Your task to perform on an android device: Open eBay Image 0: 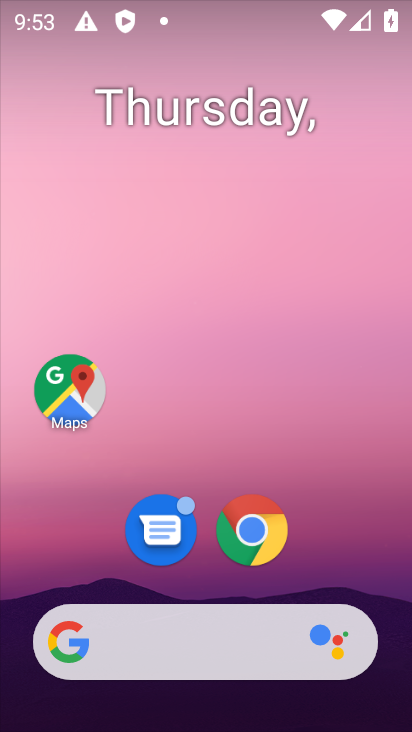
Step 0: press home button
Your task to perform on an android device: Open eBay Image 1: 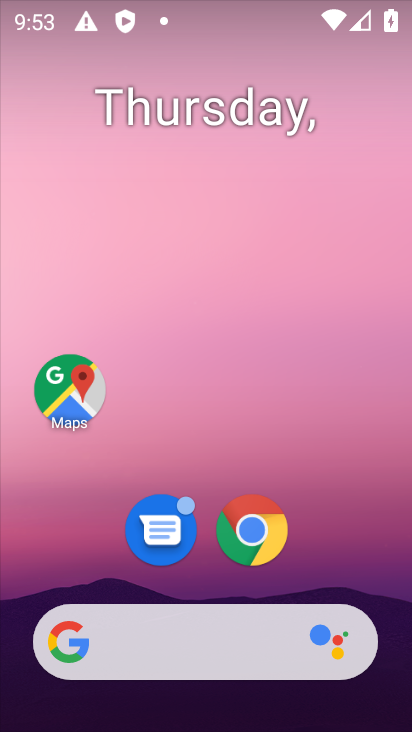
Step 1: click (60, 645)
Your task to perform on an android device: Open eBay Image 2: 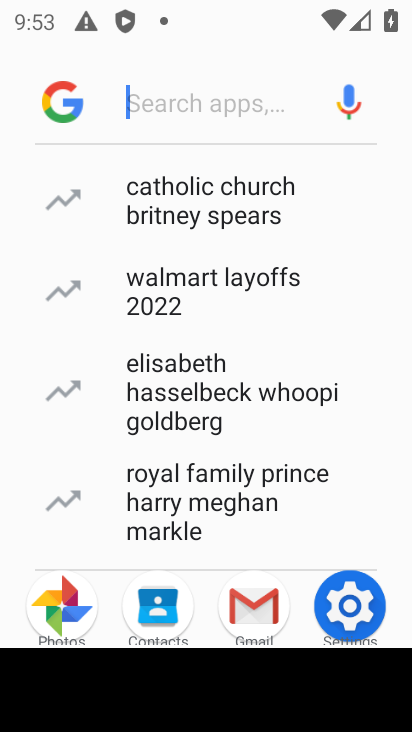
Step 2: type "eBay"
Your task to perform on an android device: Open eBay Image 3: 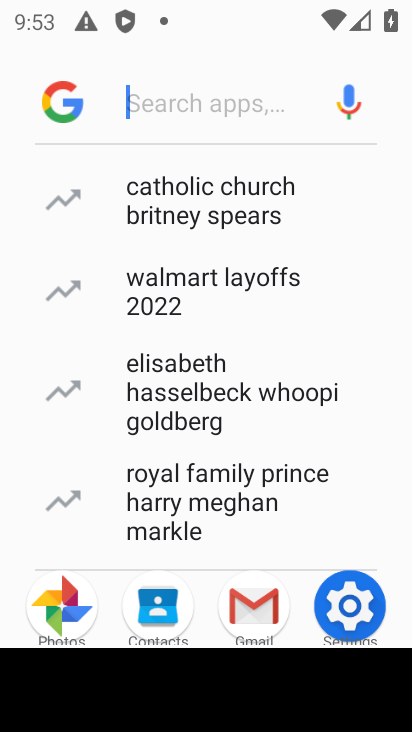
Step 3: click (137, 97)
Your task to perform on an android device: Open eBay Image 4: 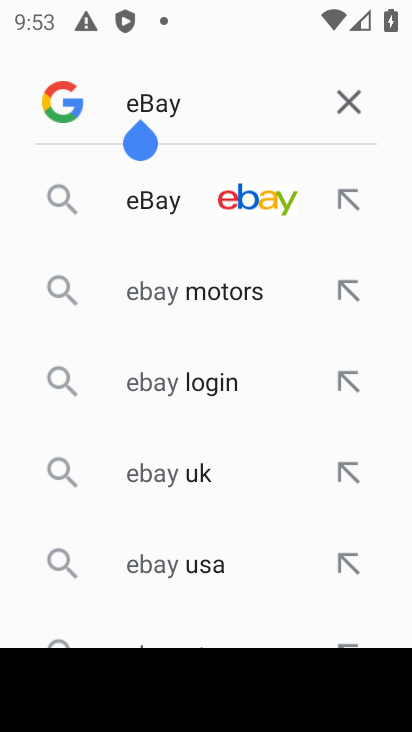
Step 4: click (257, 196)
Your task to perform on an android device: Open eBay Image 5: 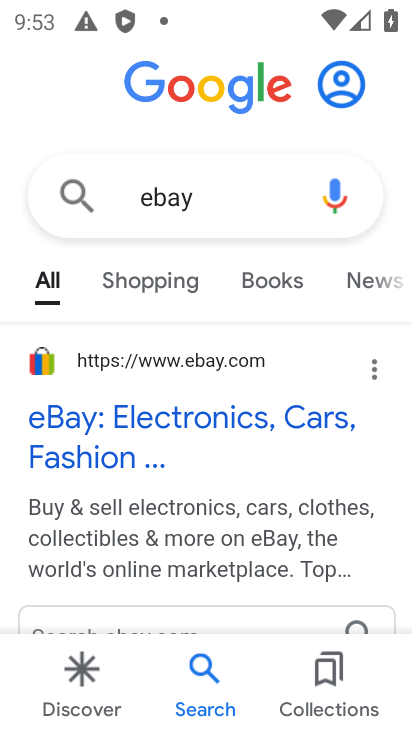
Step 5: click (104, 427)
Your task to perform on an android device: Open eBay Image 6: 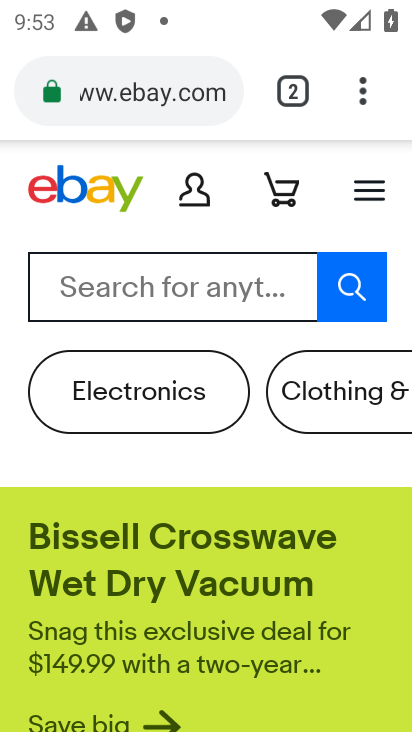
Step 6: task complete